Your task to perform on an android device: turn off translation in the chrome app Image 0: 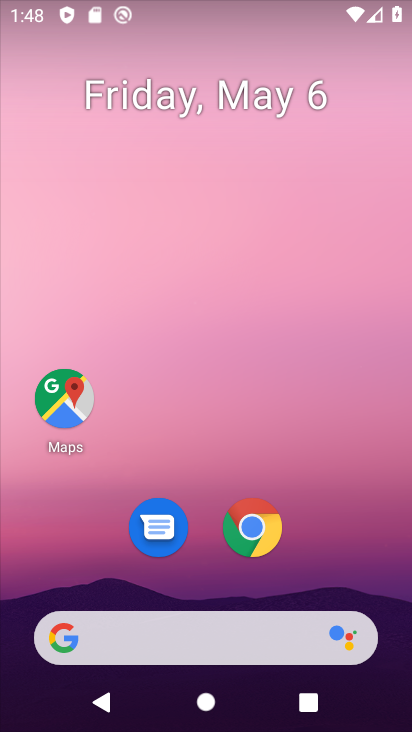
Step 0: drag from (338, 562) to (259, 148)
Your task to perform on an android device: turn off translation in the chrome app Image 1: 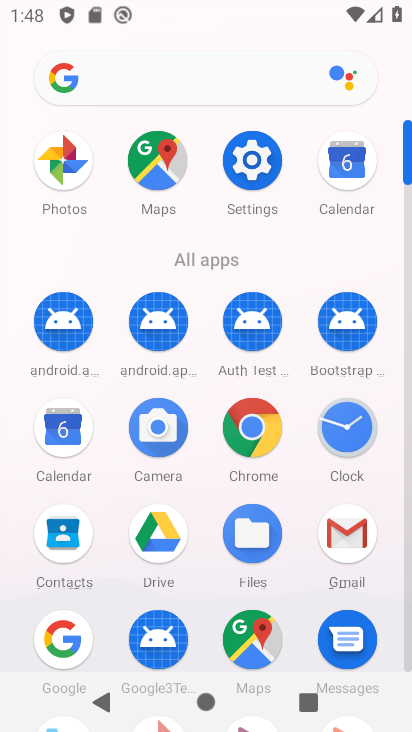
Step 1: click (243, 438)
Your task to perform on an android device: turn off translation in the chrome app Image 2: 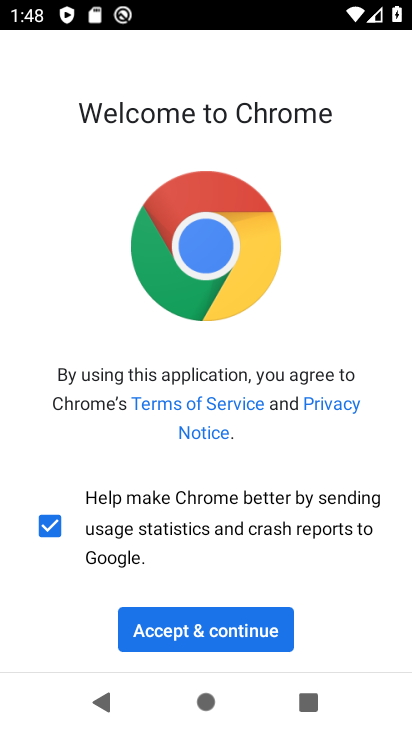
Step 2: click (239, 625)
Your task to perform on an android device: turn off translation in the chrome app Image 3: 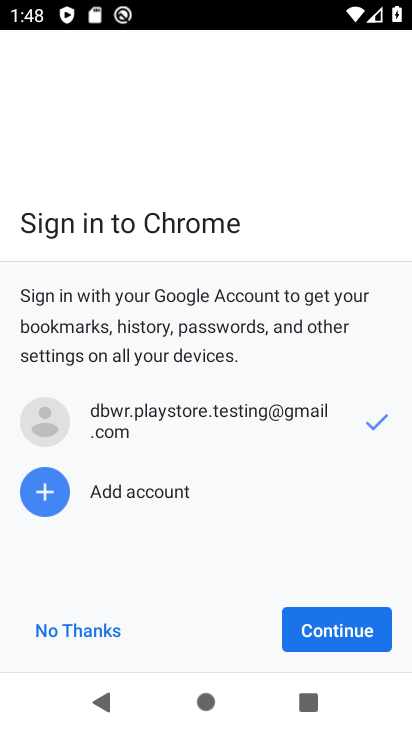
Step 3: click (339, 626)
Your task to perform on an android device: turn off translation in the chrome app Image 4: 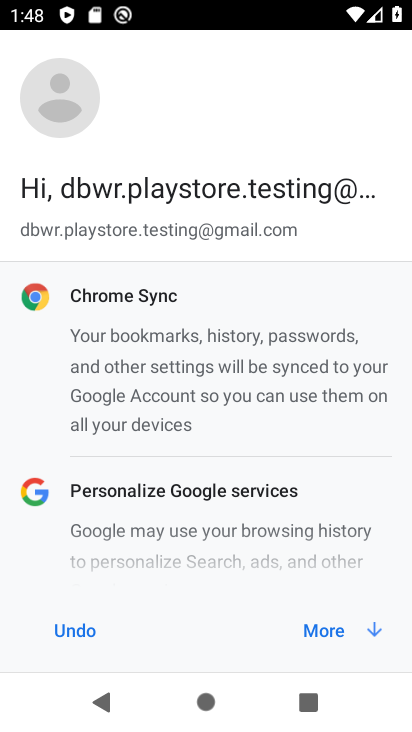
Step 4: click (322, 618)
Your task to perform on an android device: turn off translation in the chrome app Image 5: 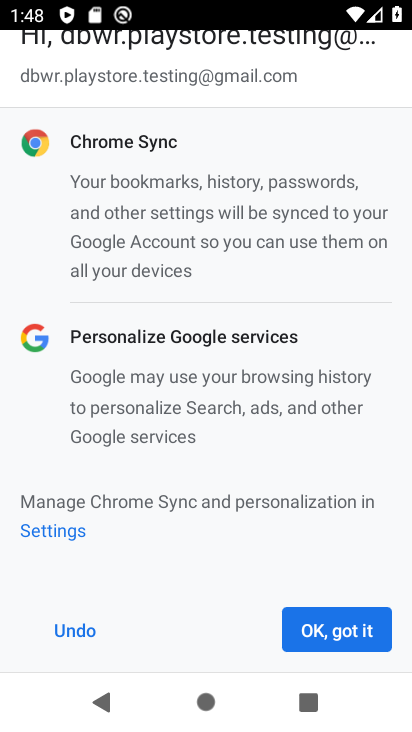
Step 5: click (328, 635)
Your task to perform on an android device: turn off translation in the chrome app Image 6: 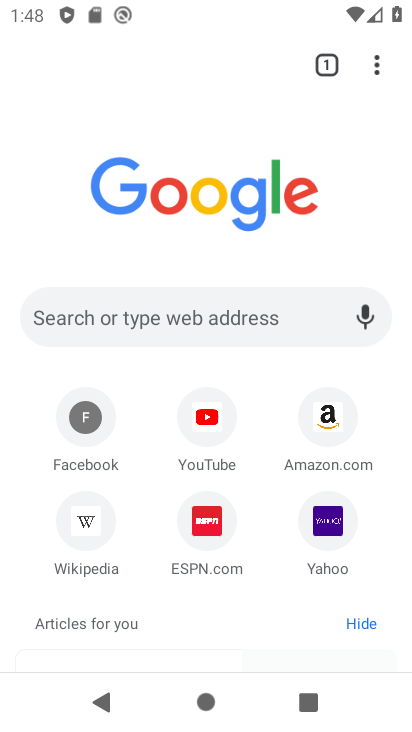
Step 6: drag from (377, 53) to (231, 544)
Your task to perform on an android device: turn off translation in the chrome app Image 7: 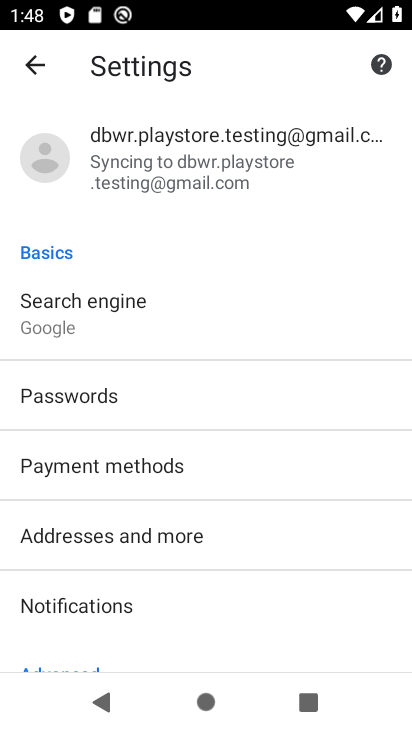
Step 7: drag from (299, 612) to (344, 254)
Your task to perform on an android device: turn off translation in the chrome app Image 8: 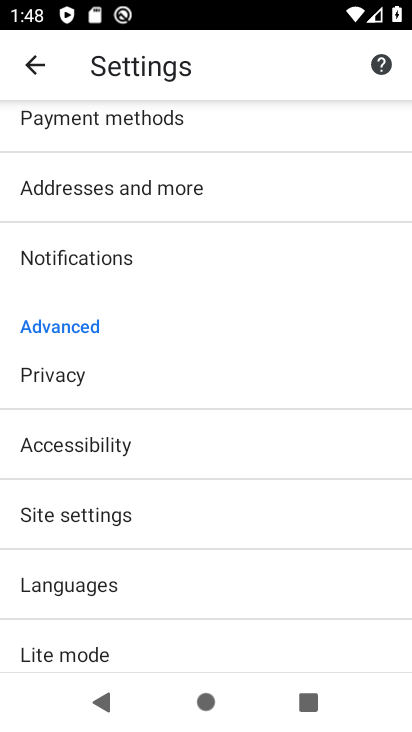
Step 8: click (90, 577)
Your task to perform on an android device: turn off translation in the chrome app Image 9: 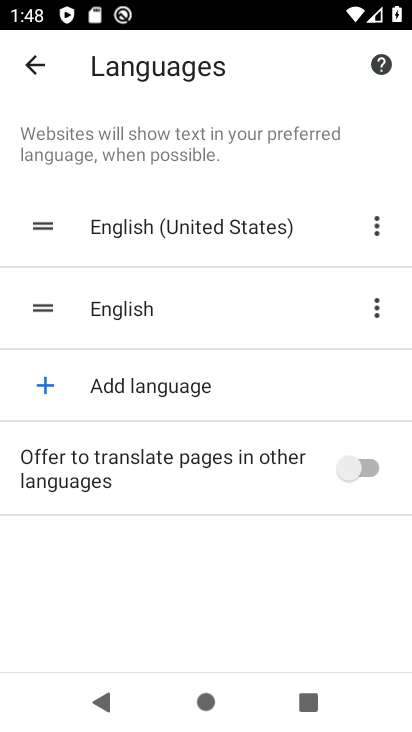
Step 9: task complete